Your task to perform on an android device: choose inbox layout in the gmail app Image 0: 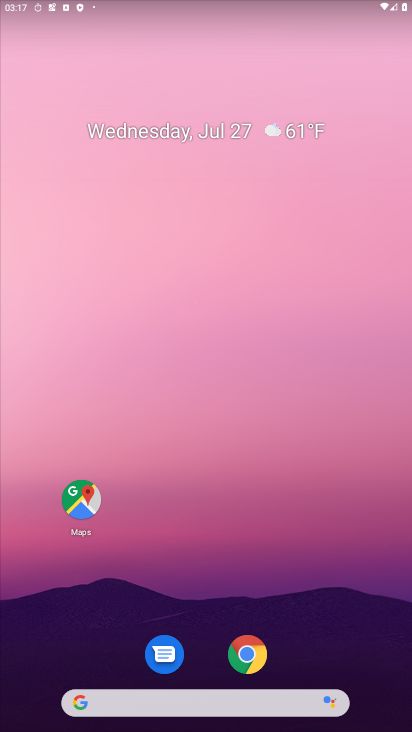
Step 0: drag from (246, 696) to (246, 276)
Your task to perform on an android device: choose inbox layout in the gmail app Image 1: 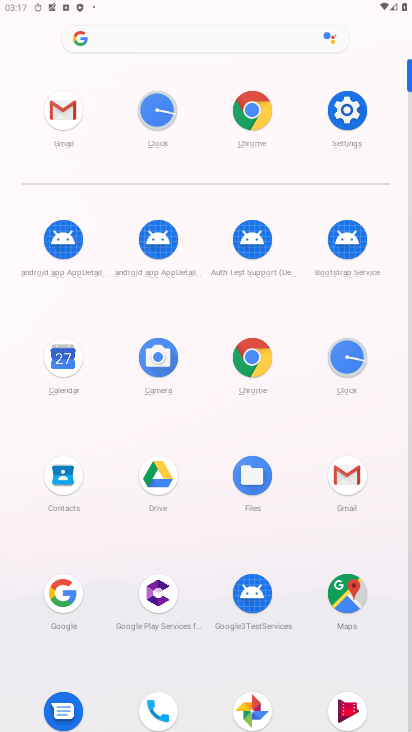
Step 1: click (352, 464)
Your task to perform on an android device: choose inbox layout in the gmail app Image 2: 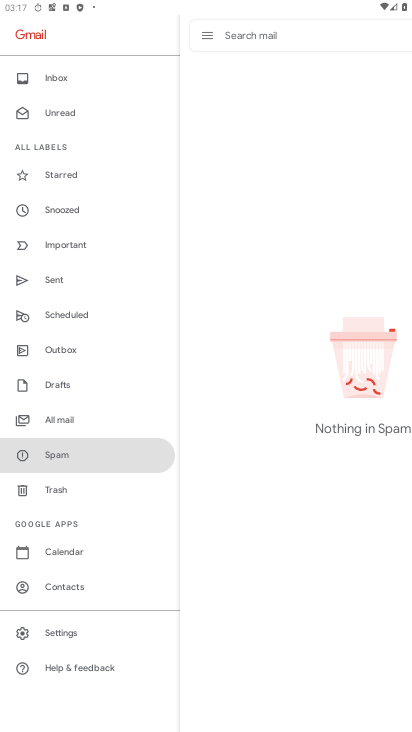
Step 2: click (43, 626)
Your task to perform on an android device: choose inbox layout in the gmail app Image 3: 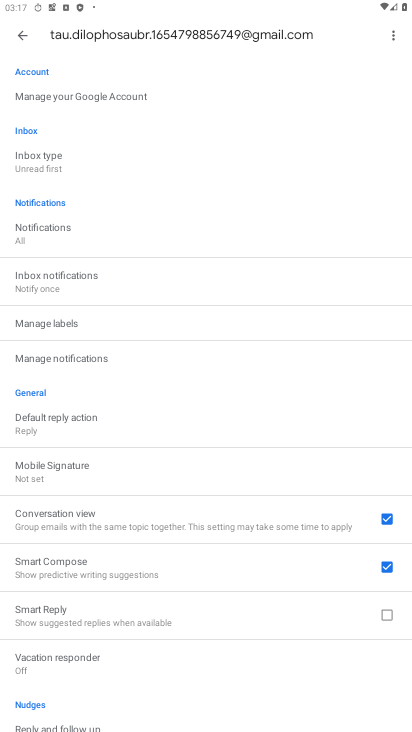
Step 3: click (67, 159)
Your task to perform on an android device: choose inbox layout in the gmail app Image 4: 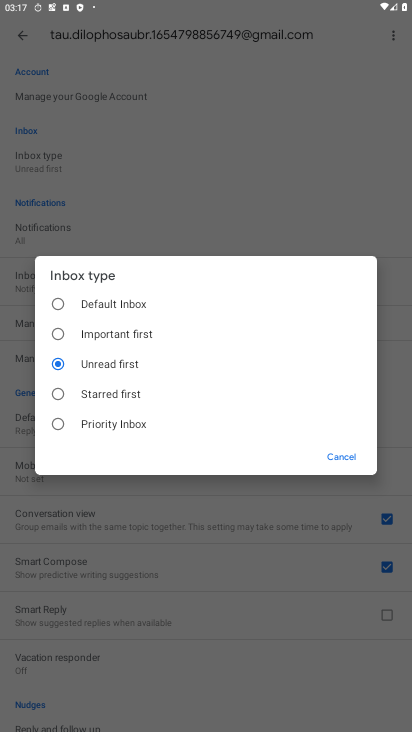
Step 4: click (69, 304)
Your task to perform on an android device: choose inbox layout in the gmail app Image 5: 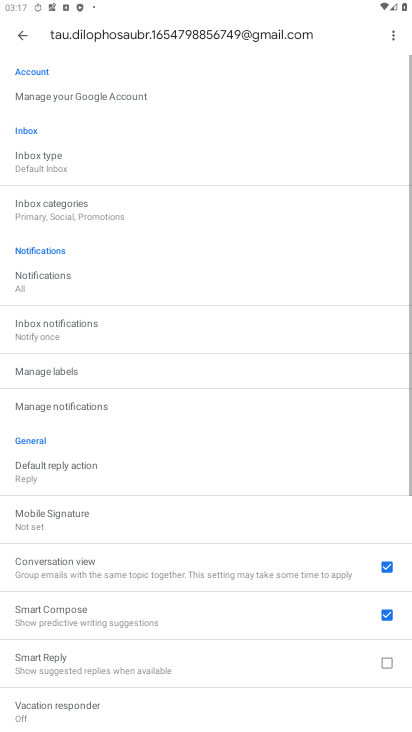
Step 5: task complete